Your task to perform on an android device: empty trash in google photos Image 0: 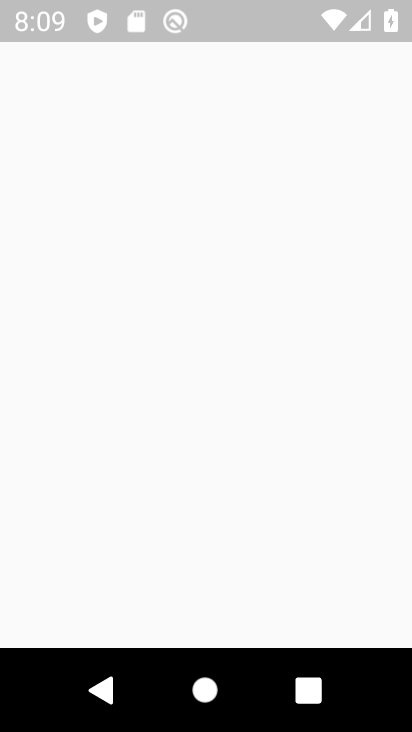
Step 0: click (252, 449)
Your task to perform on an android device: empty trash in google photos Image 1: 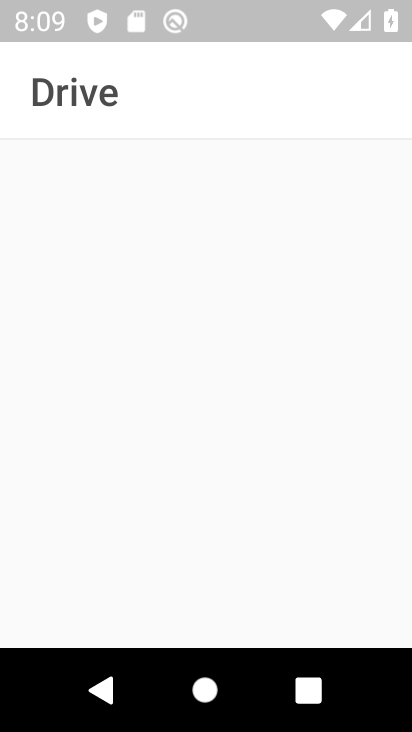
Step 1: press home button
Your task to perform on an android device: empty trash in google photos Image 2: 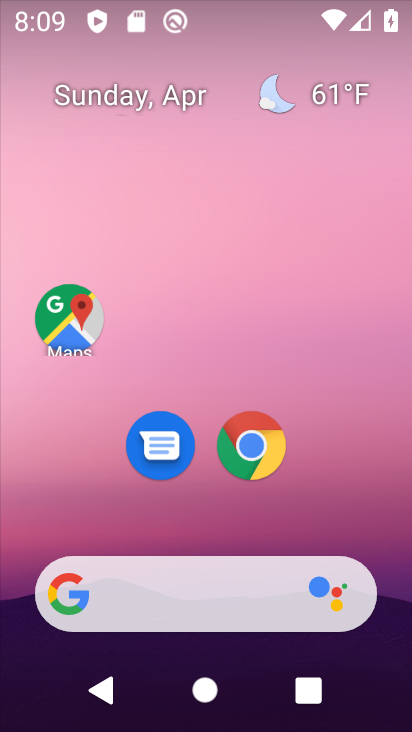
Step 2: drag from (203, 508) to (207, 135)
Your task to perform on an android device: empty trash in google photos Image 3: 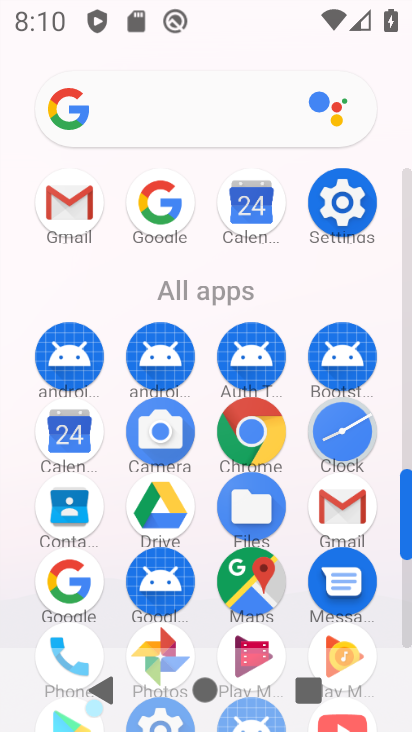
Step 3: click (140, 628)
Your task to perform on an android device: empty trash in google photos Image 4: 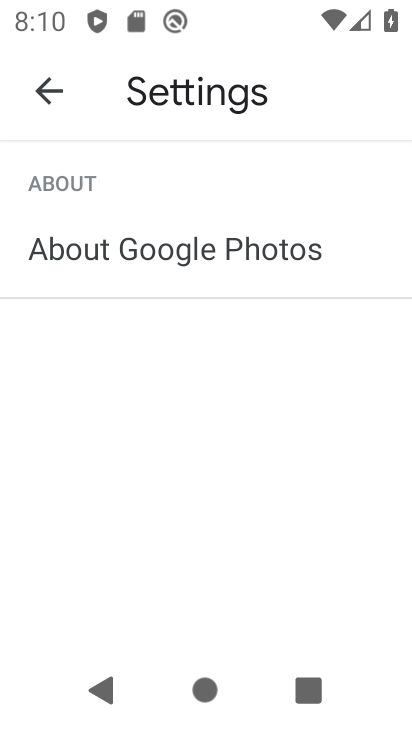
Step 4: click (53, 83)
Your task to perform on an android device: empty trash in google photos Image 5: 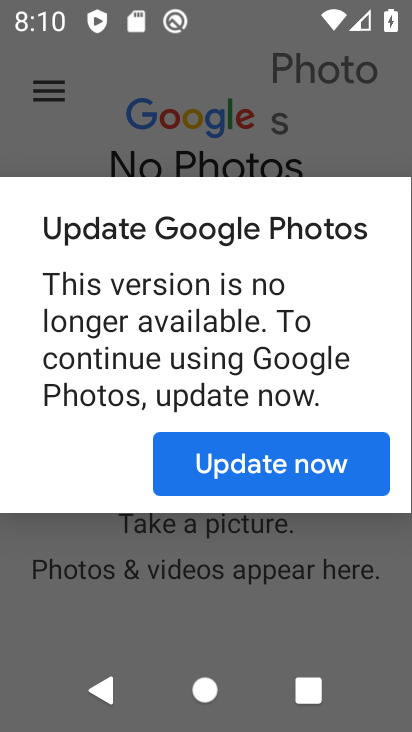
Step 5: click (251, 467)
Your task to perform on an android device: empty trash in google photos Image 6: 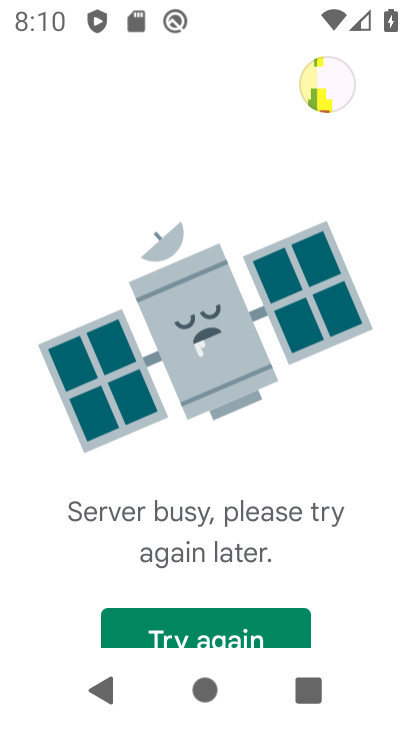
Step 6: press back button
Your task to perform on an android device: empty trash in google photos Image 7: 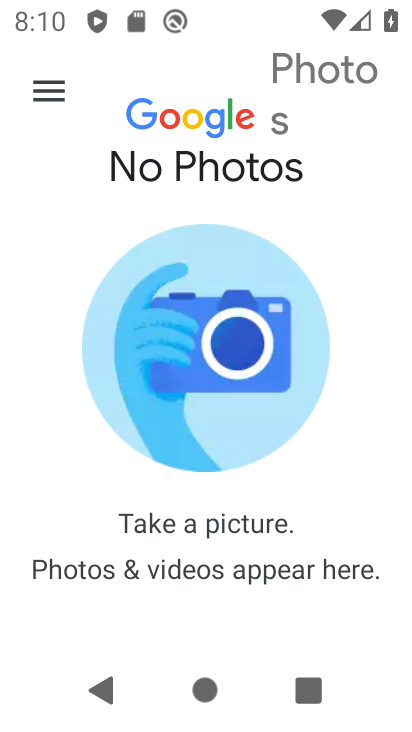
Step 7: click (51, 86)
Your task to perform on an android device: empty trash in google photos Image 8: 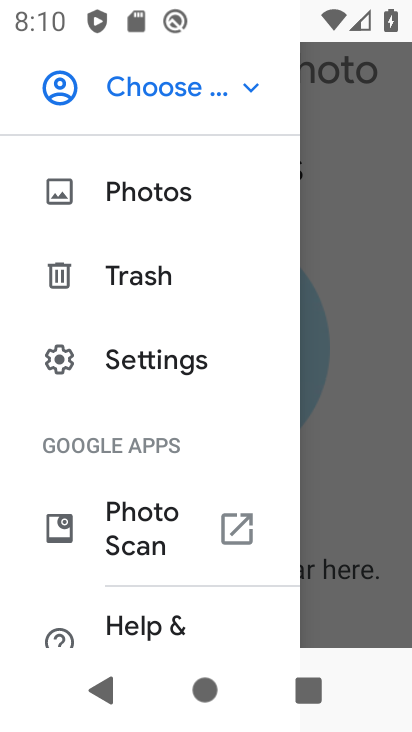
Step 8: drag from (169, 468) to (153, 407)
Your task to perform on an android device: empty trash in google photos Image 9: 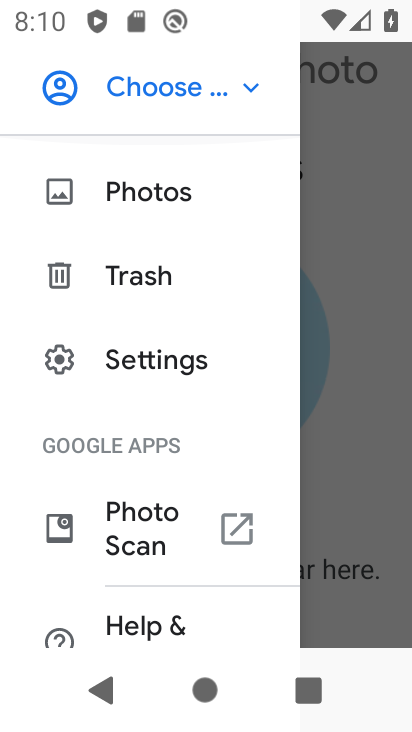
Step 9: click (128, 283)
Your task to perform on an android device: empty trash in google photos Image 10: 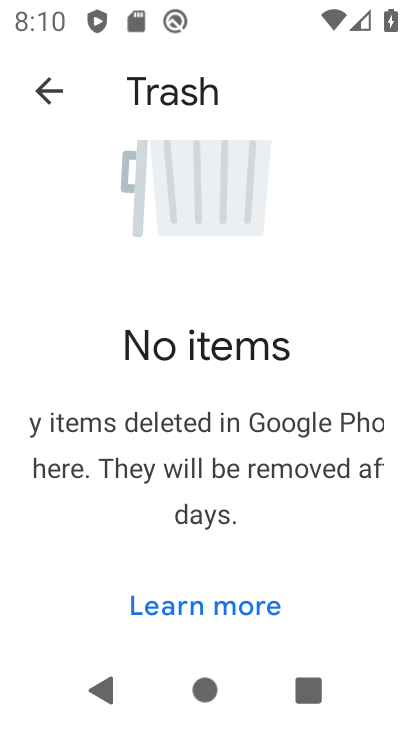
Step 10: task complete